Your task to perform on an android device: Check the weather Image 0: 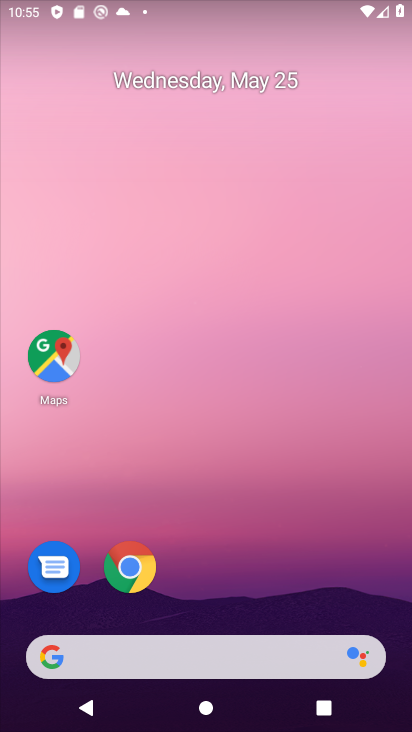
Step 0: drag from (225, 596) to (275, 20)
Your task to perform on an android device: Check the weather Image 1: 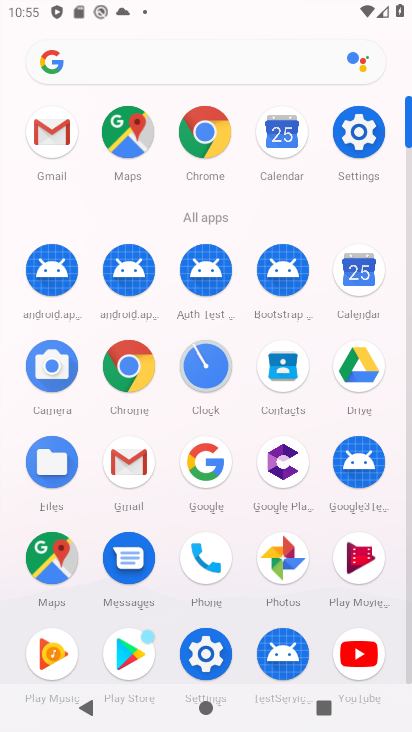
Step 1: click (233, 60)
Your task to perform on an android device: Check the weather Image 2: 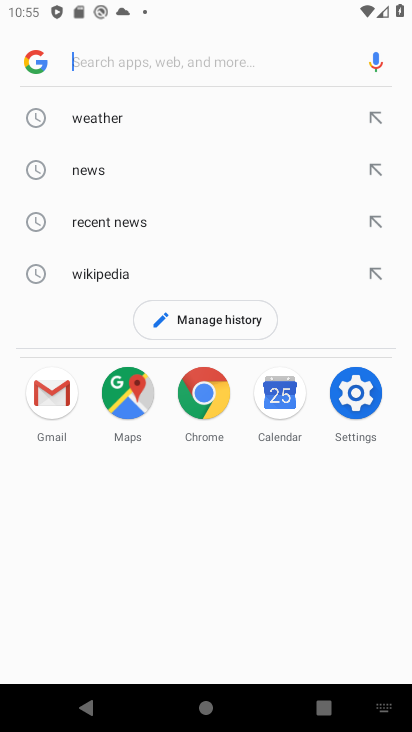
Step 2: click (121, 118)
Your task to perform on an android device: Check the weather Image 3: 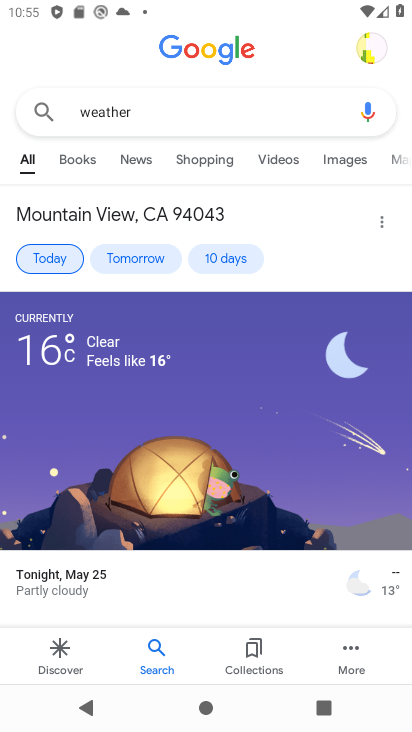
Step 3: task complete